Your task to perform on an android device: Open the calendar and show me this week's events? Image 0: 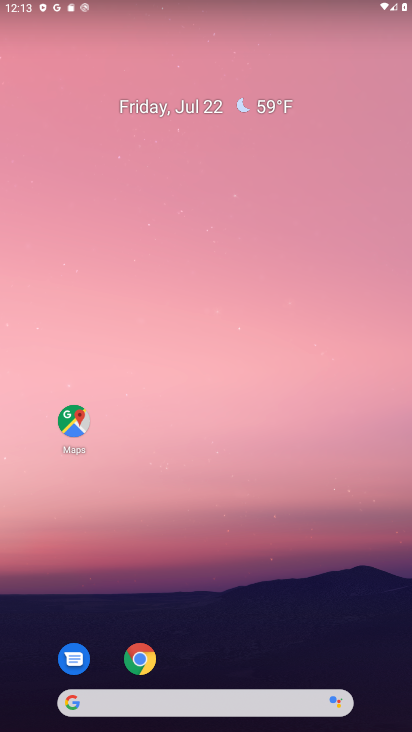
Step 0: drag from (293, 641) to (180, 1)
Your task to perform on an android device: Open the calendar and show me this week's events? Image 1: 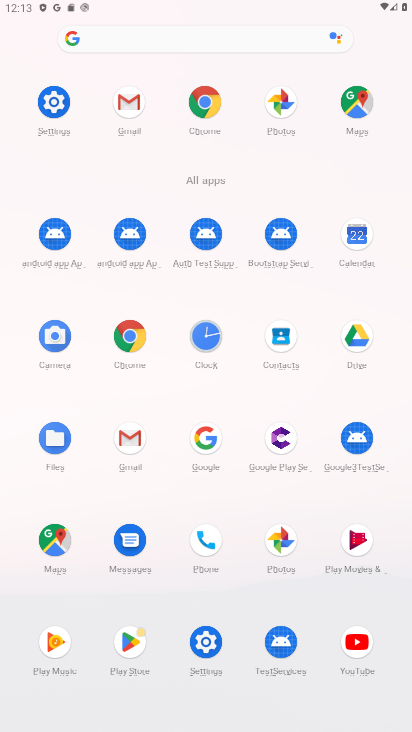
Step 1: click (353, 233)
Your task to perform on an android device: Open the calendar and show me this week's events? Image 2: 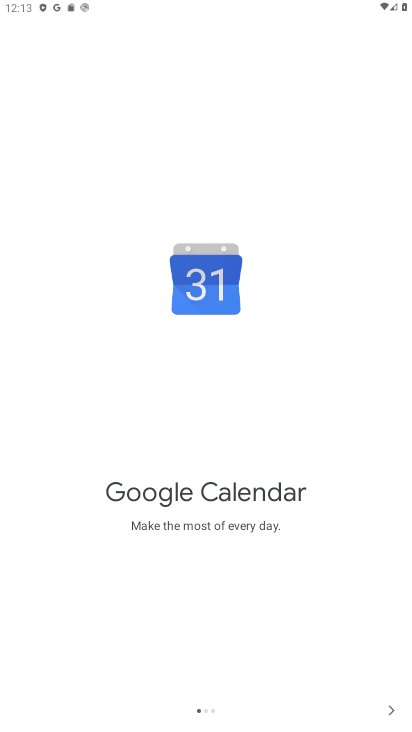
Step 2: click (398, 710)
Your task to perform on an android device: Open the calendar and show me this week's events? Image 3: 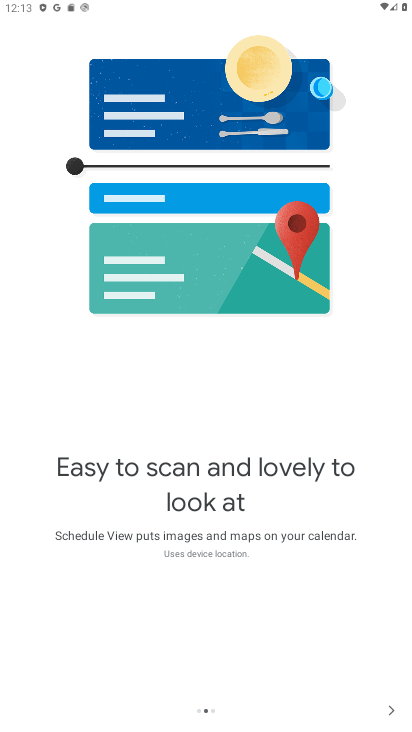
Step 3: click (395, 708)
Your task to perform on an android device: Open the calendar and show me this week's events? Image 4: 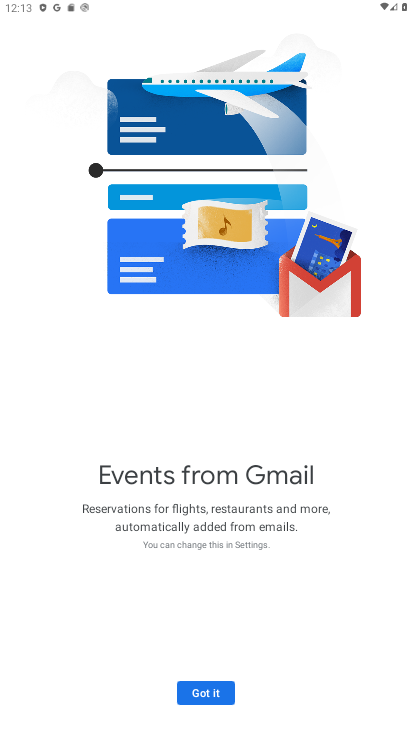
Step 4: click (208, 686)
Your task to perform on an android device: Open the calendar and show me this week's events? Image 5: 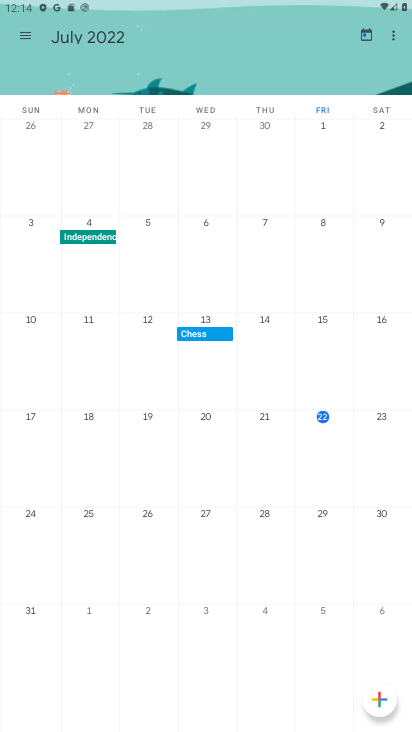
Step 5: click (316, 416)
Your task to perform on an android device: Open the calendar and show me this week's events? Image 6: 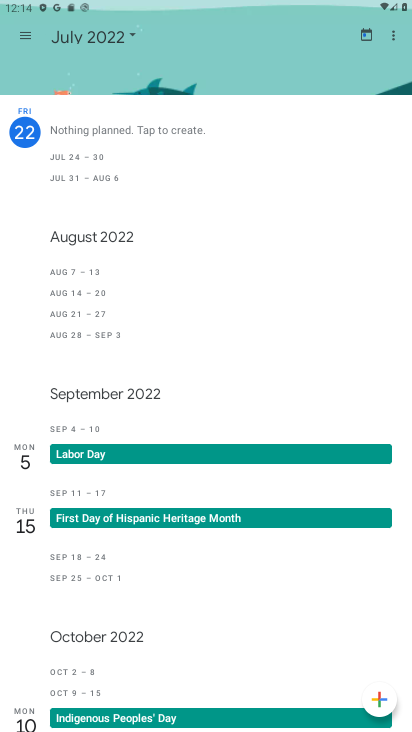
Step 6: task complete